Your task to perform on an android device: Open the phone app and click the voicemail tab. Image 0: 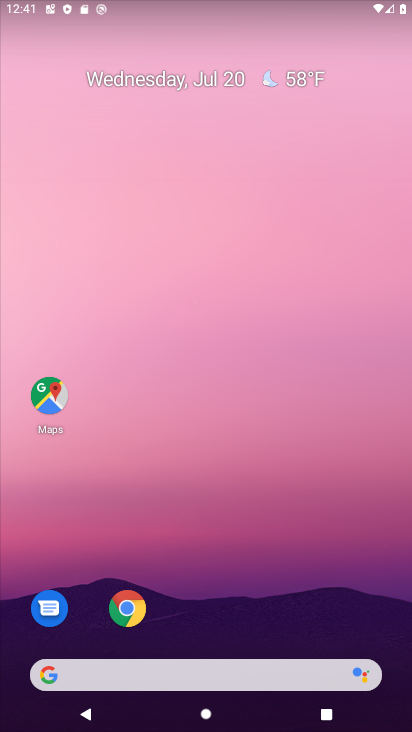
Step 0: drag from (316, 443) to (381, 153)
Your task to perform on an android device: Open the phone app and click the voicemail tab. Image 1: 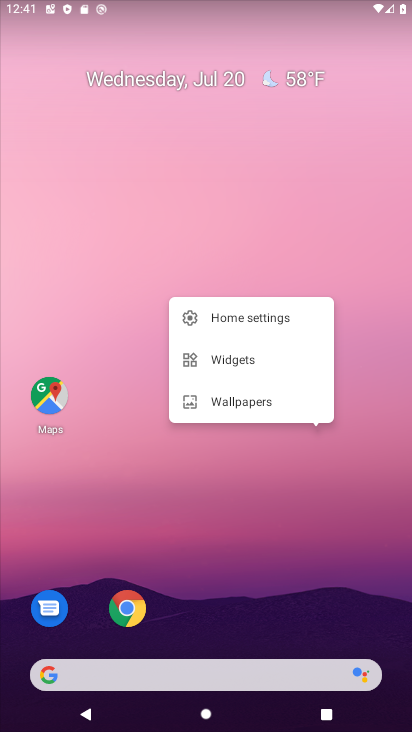
Step 1: drag from (216, 656) to (350, 129)
Your task to perform on an android device: Open the phone app and click the voicemail tab. Image 2: 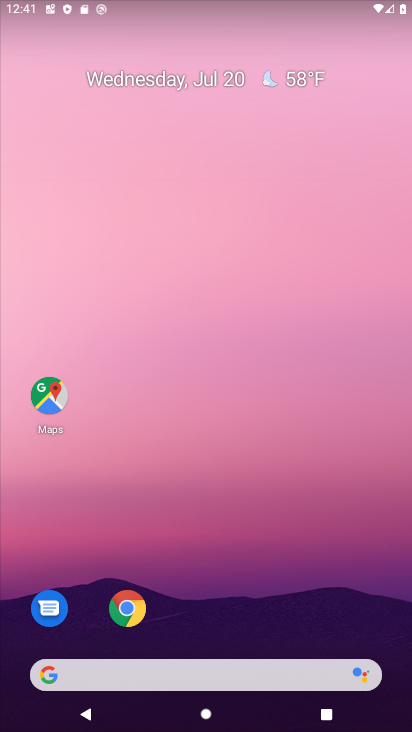
Step 2: drag from (233, 646) to (308, 64)
Your task to perform on an android device: Open the phone app and click the voicemail tab. Image 3: 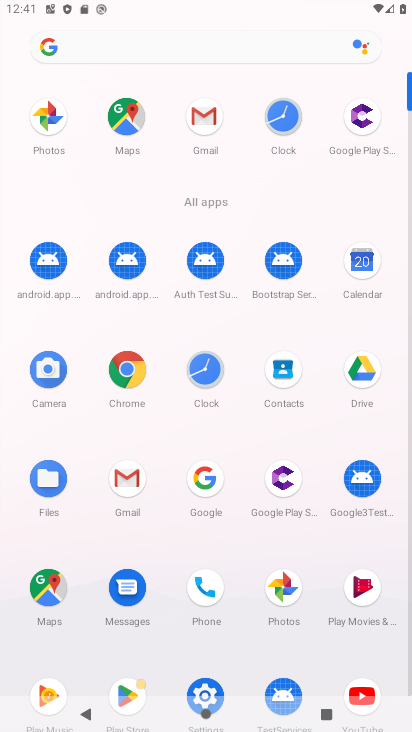
Step 3: click (208, 586)
Your task to perform on an android device: Open the phone app and click the voicemail tab. Image 4: 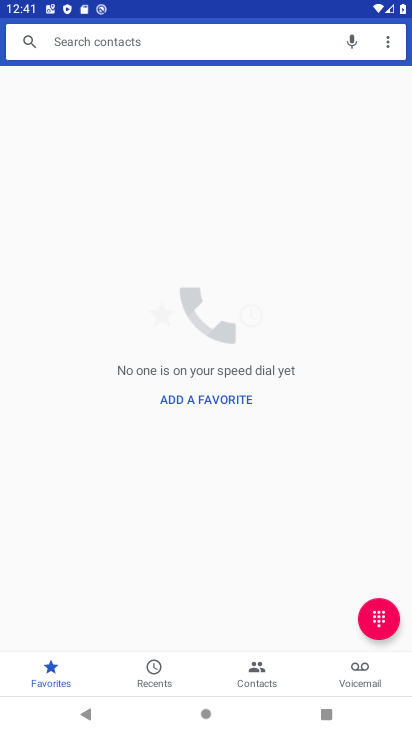
Step 4: click (198, 585)
Your task to perform on an android device: Open the phone app and click the voicemail tab. Image 5: 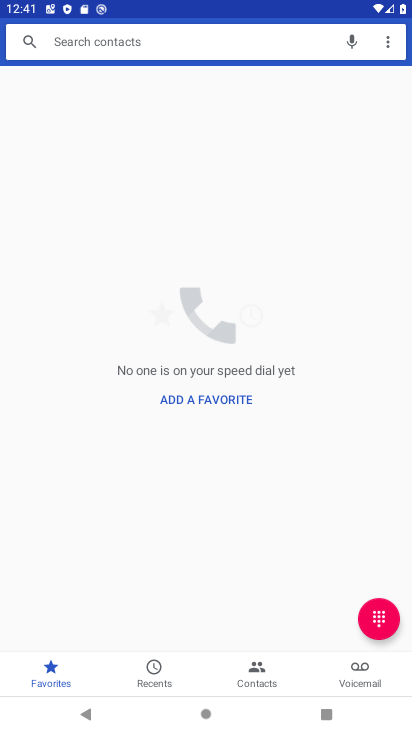
Step 5: click (361, 667)
Your task to perform on an android device: Open the phone app and click the voicemail tab. Image 6: 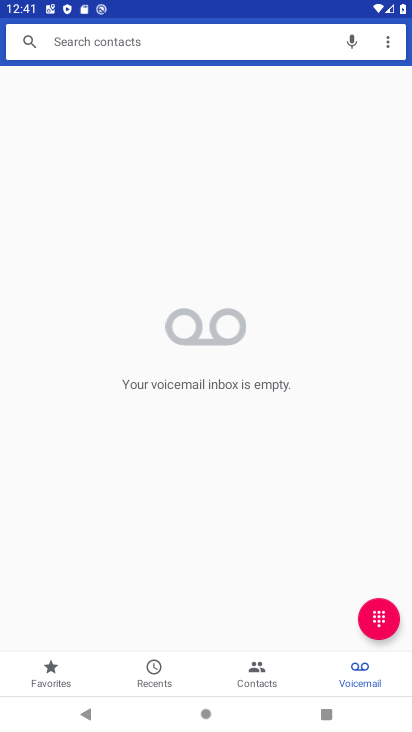
Step 6: task complete